Your task to perform on an android device: What's on my calendar tomorrow? Image 0: 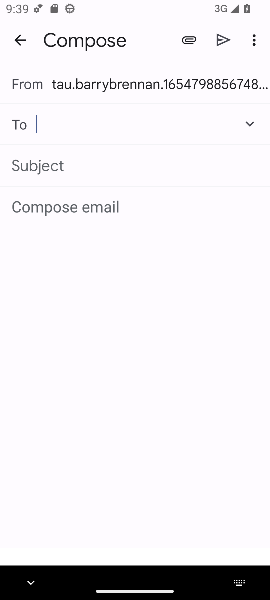
Step 0: press home button
Your task to perform on an android device: What's on my calendar tomorrow? Image 1: 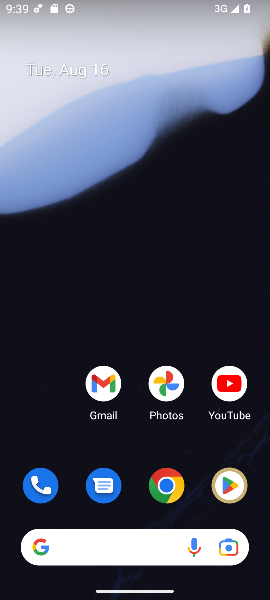
Step 1: drag from (210, 443) to (143, 49)
Your task to perform on an android device: What's on my calendar tomorrow? Image 2: 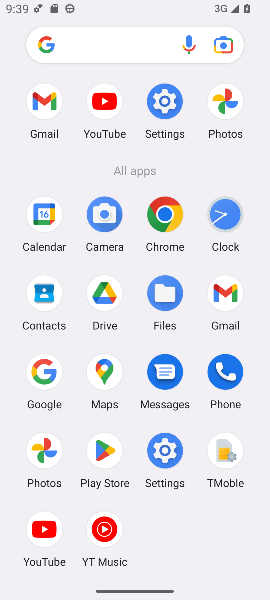
Step 2: click (51, 222)
Your task to perform on an android device: What's on my calendar tomorrow? Image 3: 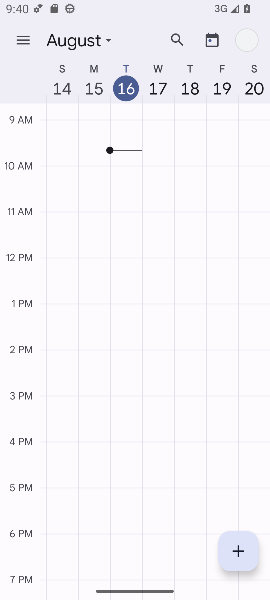
Step 3: click (26, 46)
Your task to perform on an android device: What's on my calendar tomorrow? Image 4: 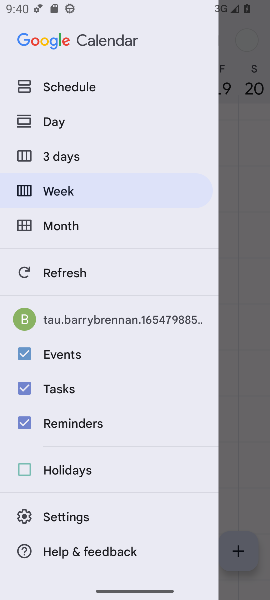
Step 4: click (66, 123)
Your task to perform on an android device: What's on my calendar tomorrow? Image 5: 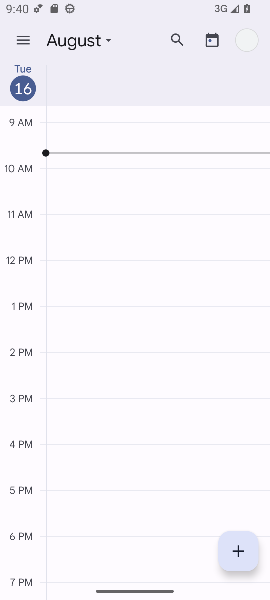
Step 5: click (99, 36)
Your task to perform on an android device: What's on my calendar tomorrow? Image 6: 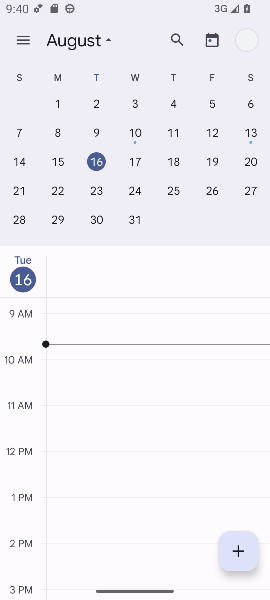
Step 6: click (135, 166)
Your task to perform on an android device: What's on my calendar tomorrow? Image 7: 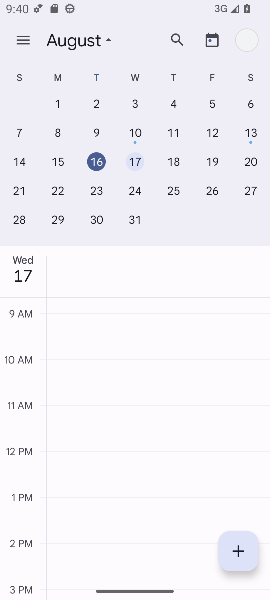
Step 7: task complete